Your task to perform on an android device: Go to Google maps Image 0: 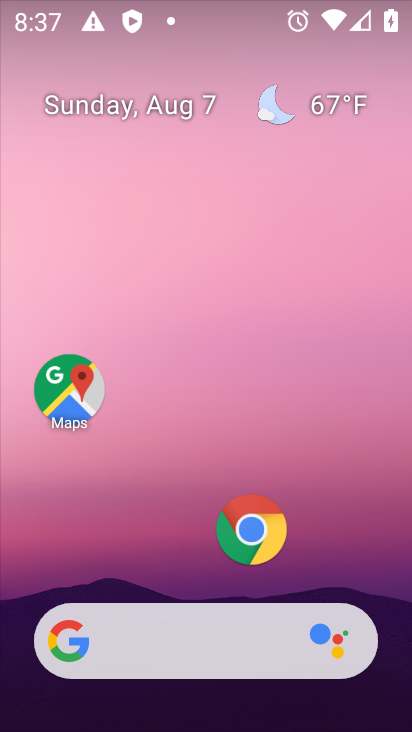
Step 0: click (70, 400)
Your task to perform on an android device: Go to Google maps Image 1: 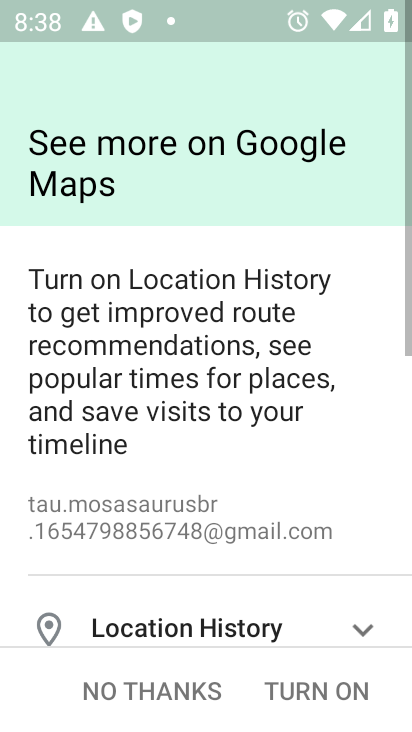
Step 1: task complete